Your task to perform on an android device: Is it going to rain today? Image 0: 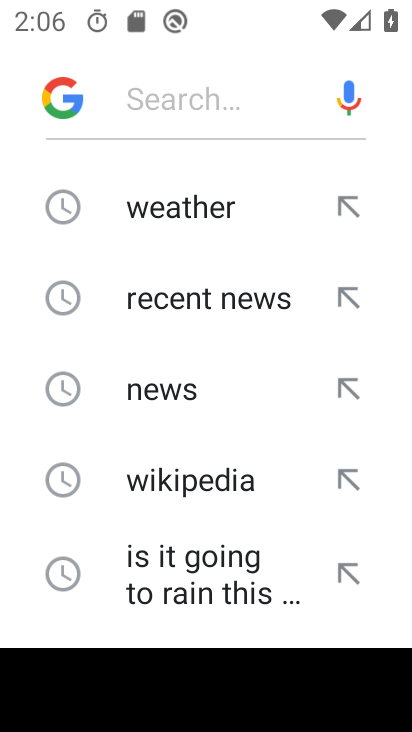
Step 0: type "is it going to rain today?"
Your task to perform on an android device: Is it going to rain today? Image 1: 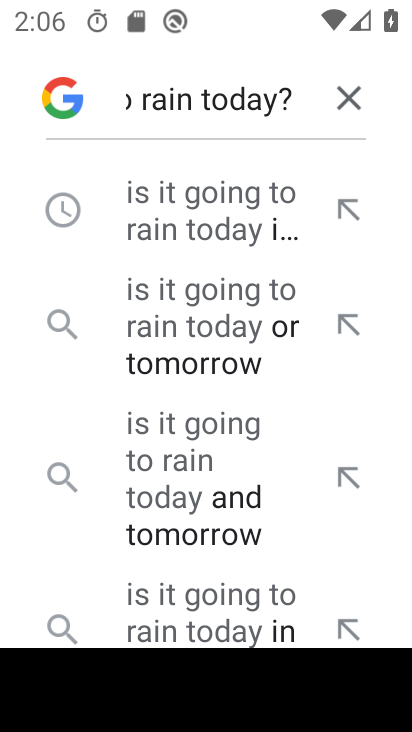
Step 1: click (228, 213)
Your task to perform on an android device: Is it going to rain today? Image 2: 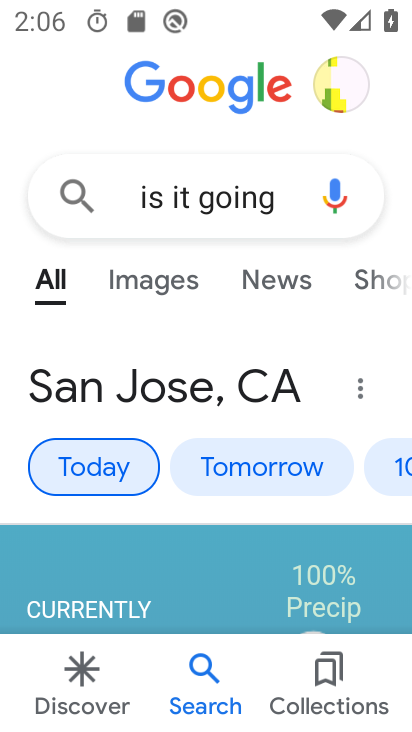
Step 2: task complete